Your task to perform on an android device: open app "DoorDash - Food Delivery" (install if not already installed) Image 0: 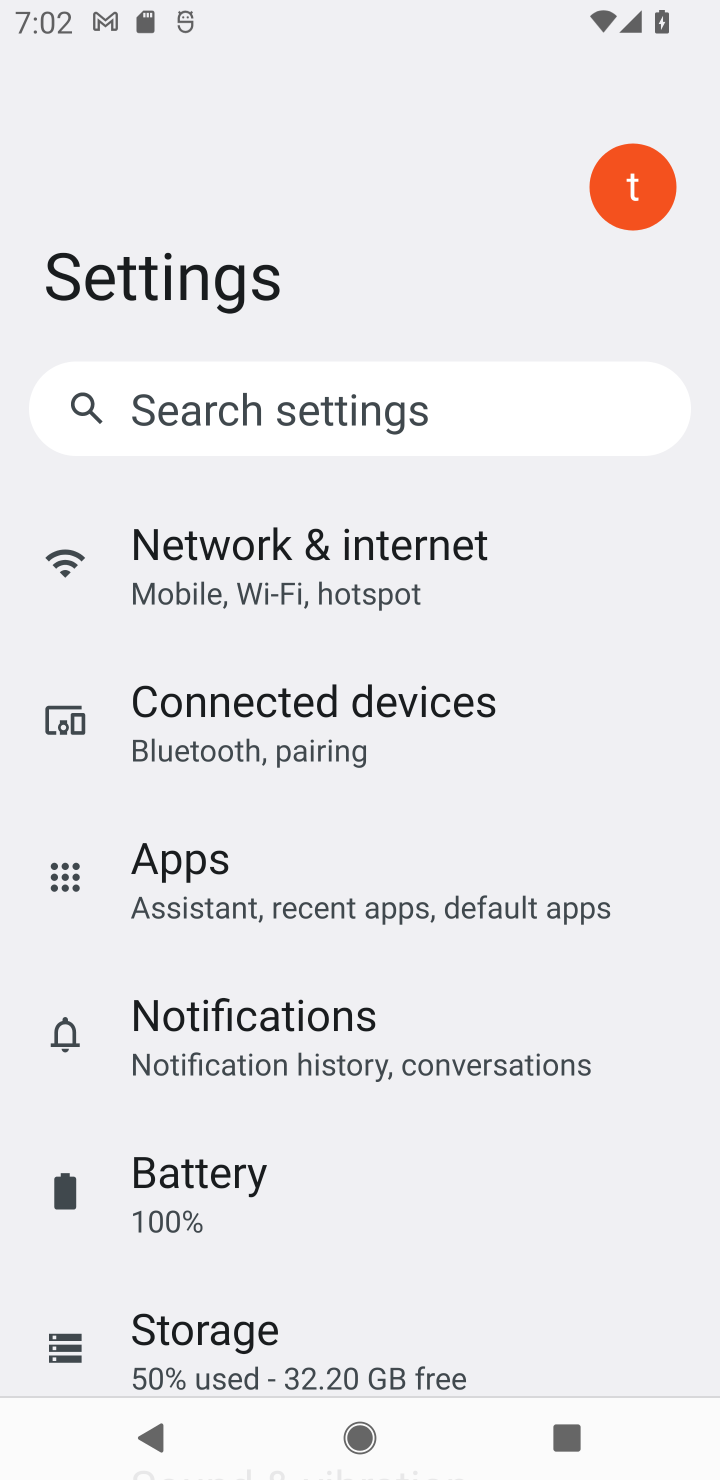
Step 0: press home button
Your task to perform on an android device: open app "DoorDash - Food Delivery" (install if not already installed) Image 1: 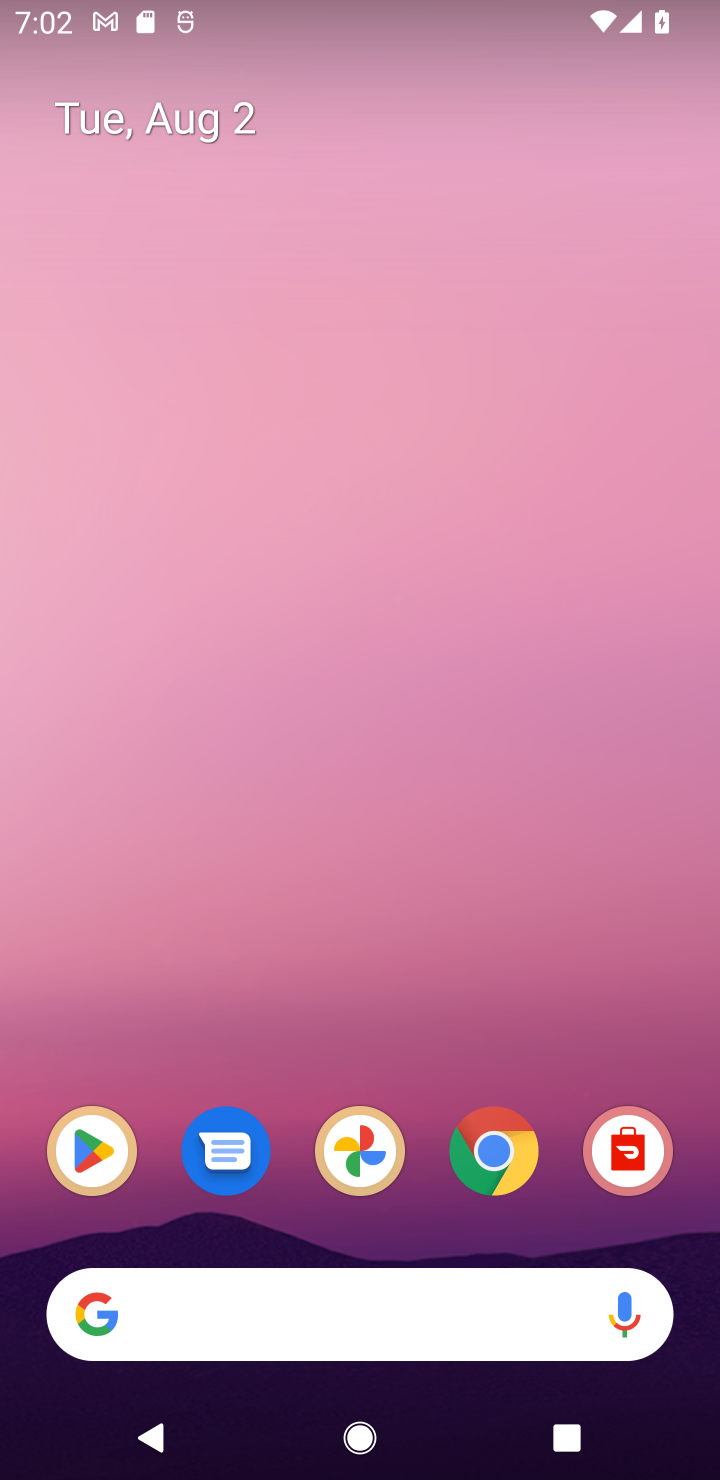
Step 1: click (112, 1160)
Your task to perform on an android device: open app "DoorDash - Food Delivery" (install if not already installed) Image 2: 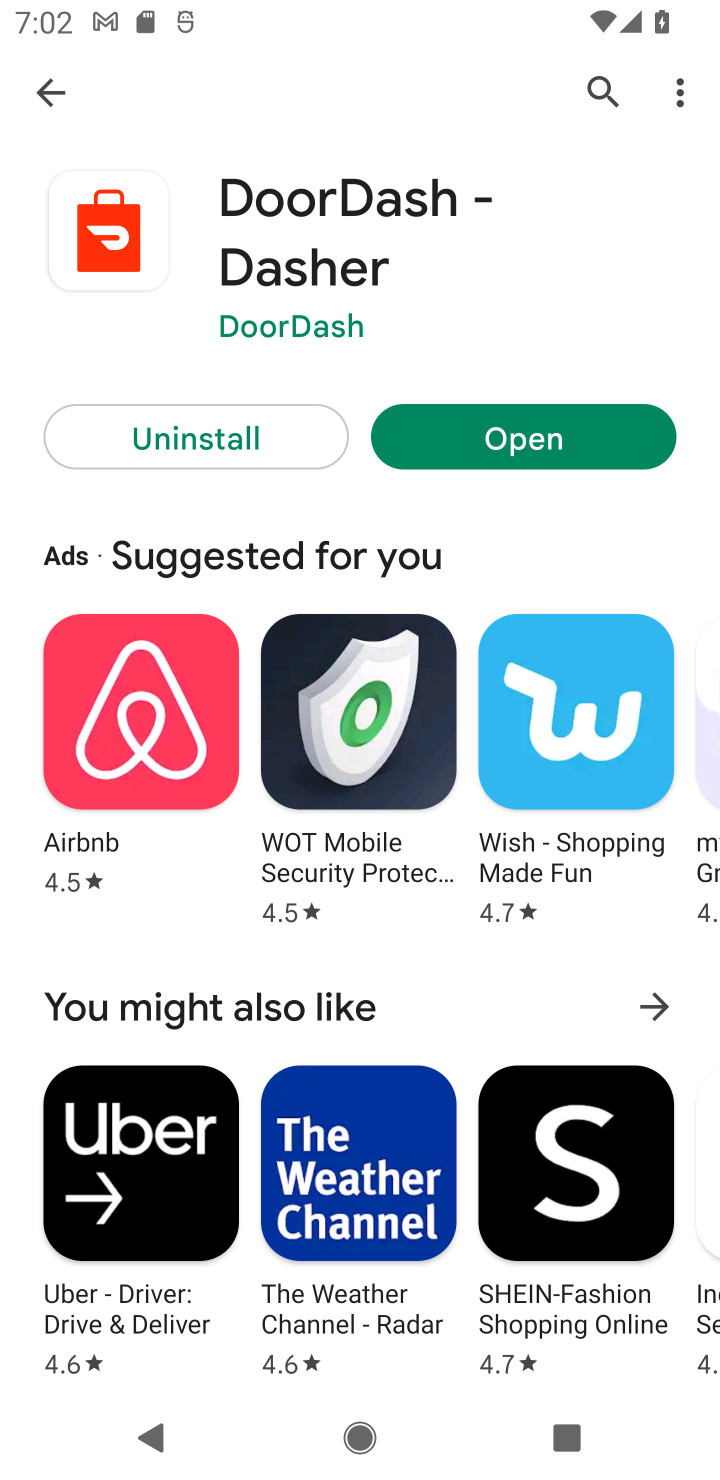
Step 2: click (603, 438)
Your task to perform on an android device: open app "DoorDash - Food Delivery" (install if not already installed) Image 3: 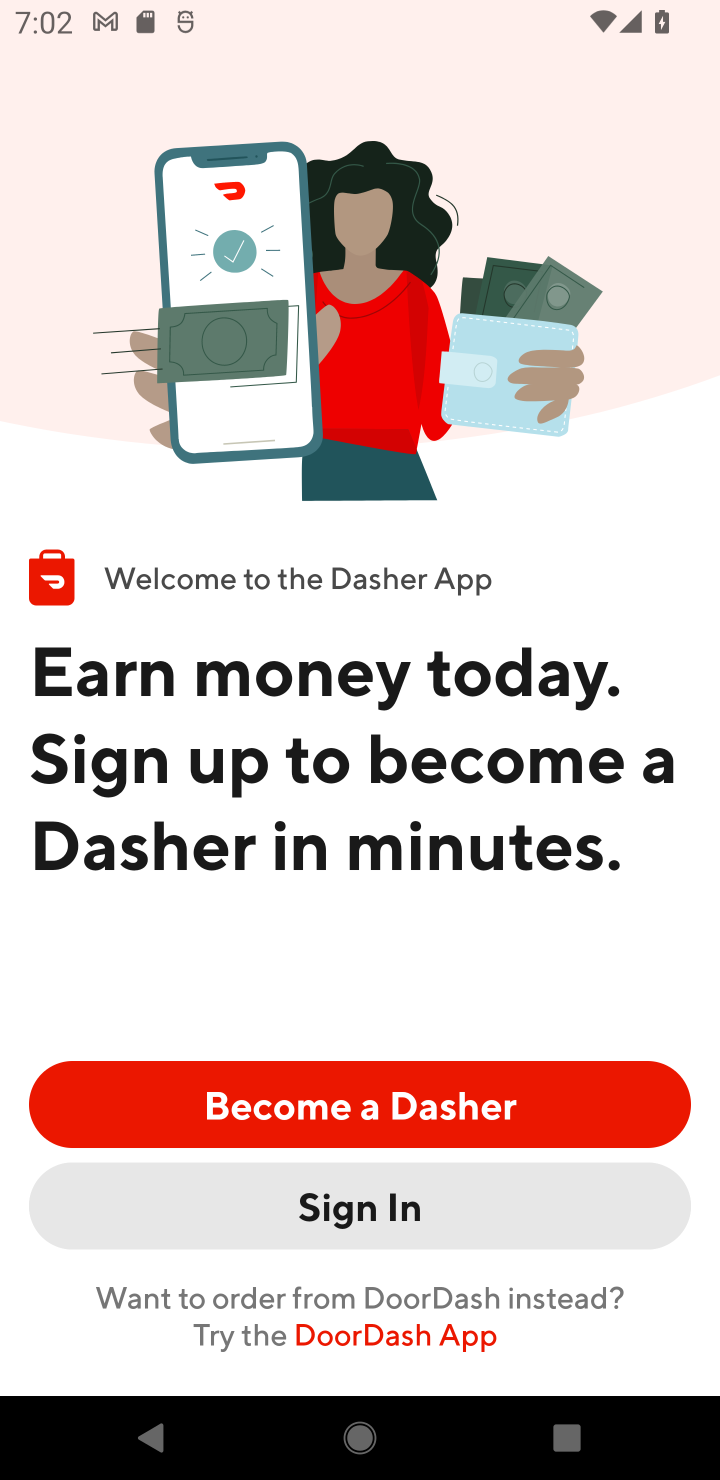
Step 3: task complete